Your task to perform on an android device: Open notification settings Image 0: 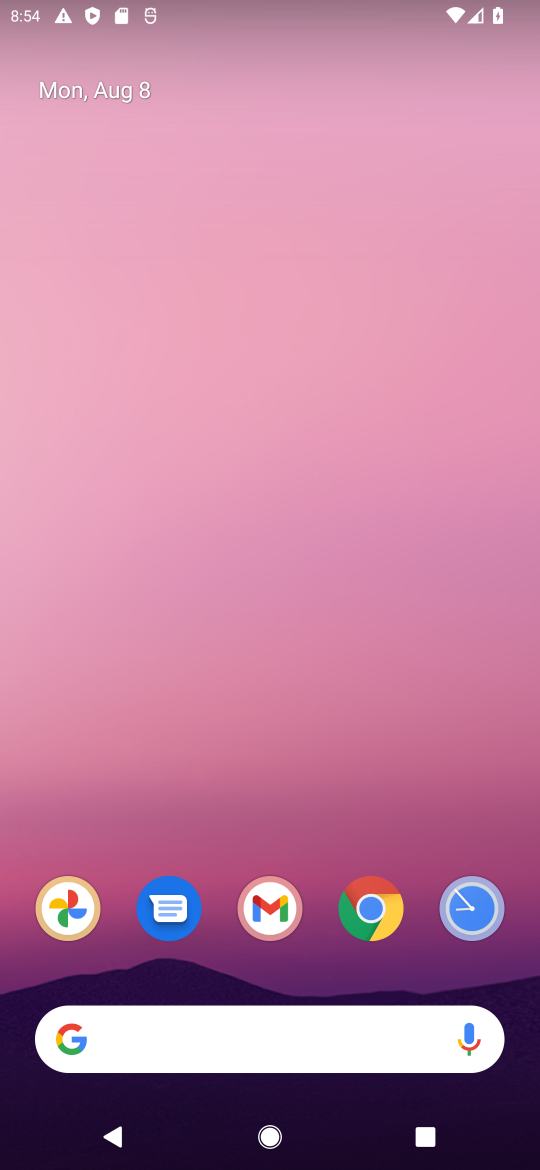
Step 0: drag from (226, 950) to (491, 25)
Your task to perform on an android device: Open notification settings Image 1: 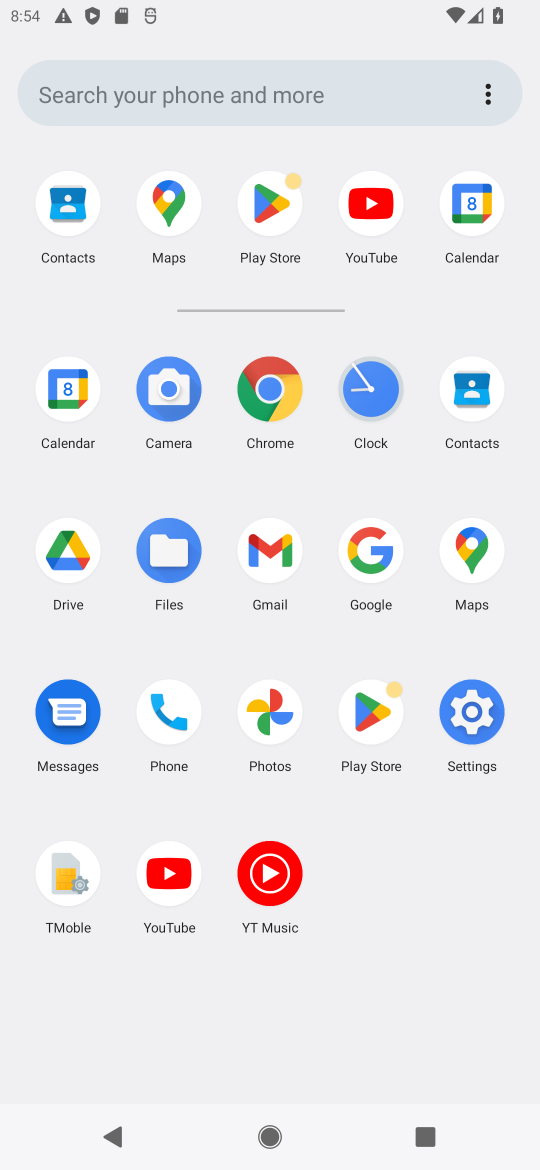
Step 1: click (464, 726)
Your task to perform on an android device: Open notification settings Image 2: 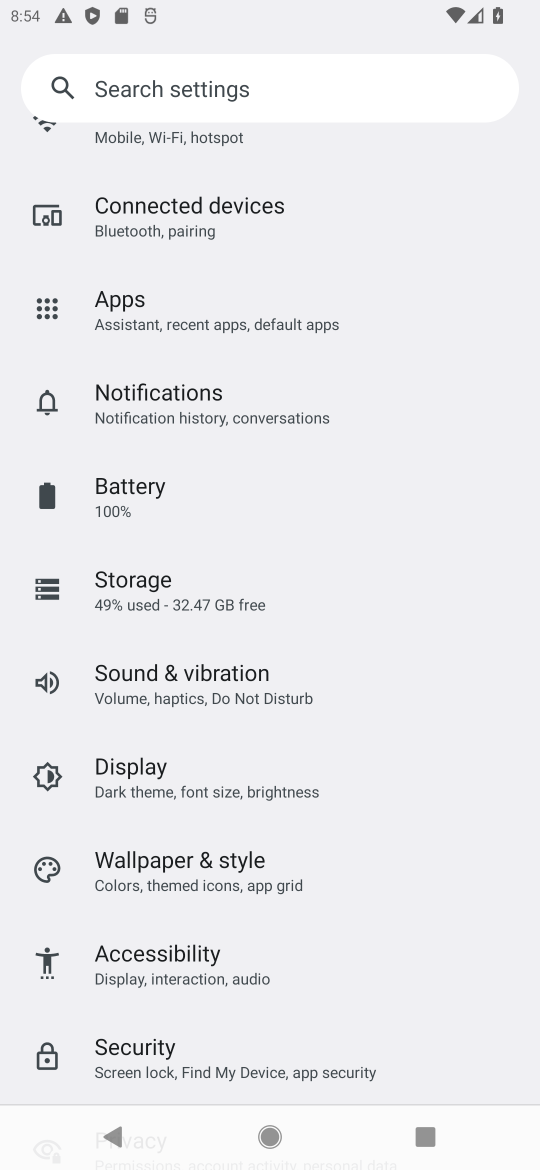
Step 2: click (154, 428)
Your task to perform on an android device: Open notification settings Image 3: 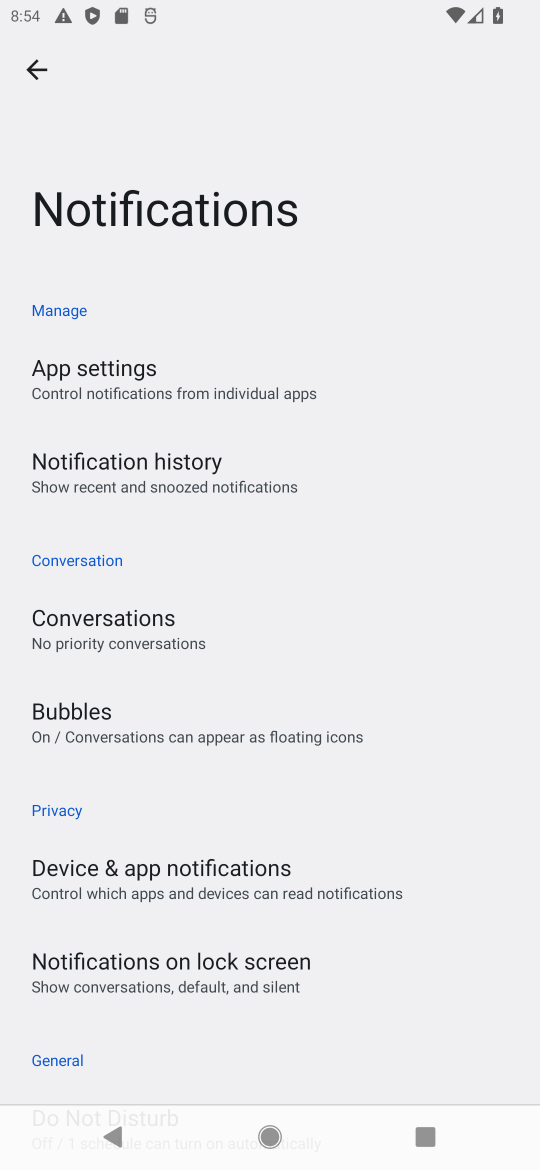
Step 3: task complete